Your task to perform on an android device: Open accessibility settings Image 0: 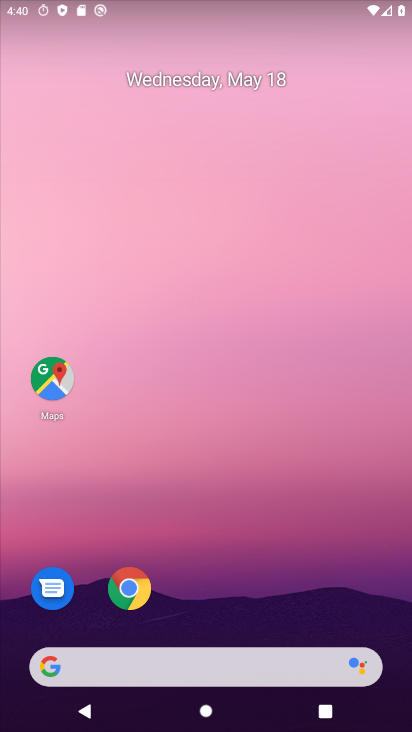
Step 0: drag from (162, 611) to (240, 90)
Your task to perform on an android device: Open accessibility settings Image 1: 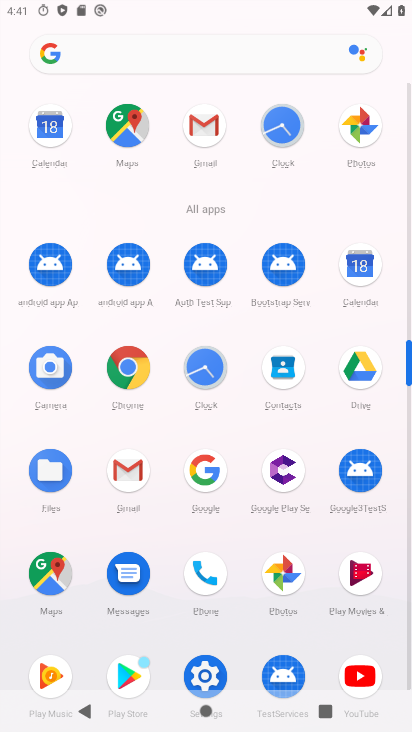
Step 1: click (209, 670)
Your task to perform on an android device: Open accessibility settings Image 2: 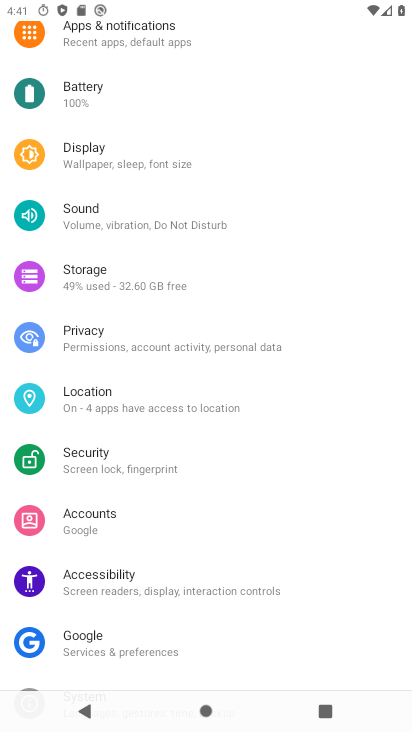
Step 2: click (87, 570)
Your task to perform on an android device: Open accessibility settings Image 3: 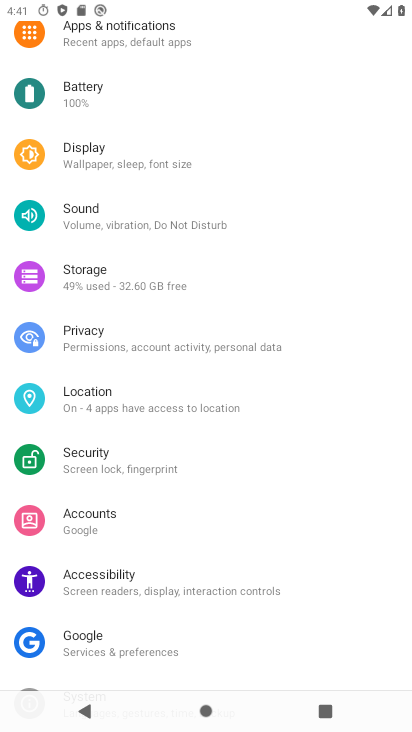
Step 3: click (90, 576)
Your task to perform on an android device: Open accessibility settings Image 4: 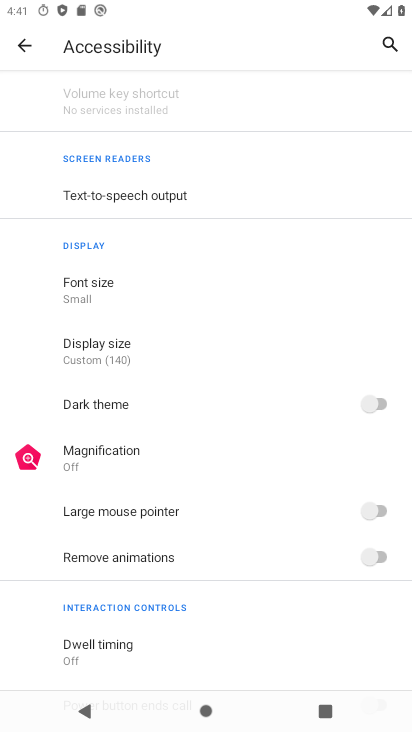
Step 4: task complete